Your task to perform on an android device: check storage Image 0: 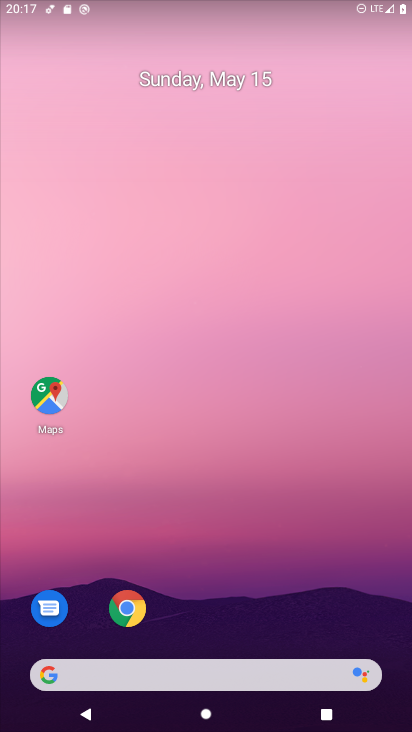
Step 0: drag from (233, 606) to (186, 125)
Your task to perform on an android device: check storage Image 1: 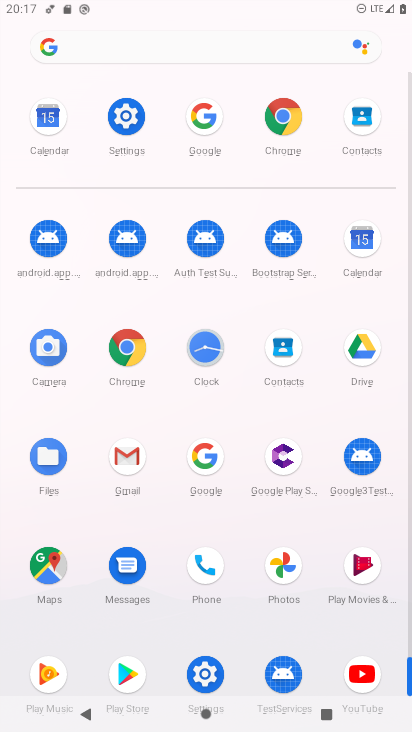
Step 1: click (208, 677)
Your task to perform on an android device: check storage Image 2: 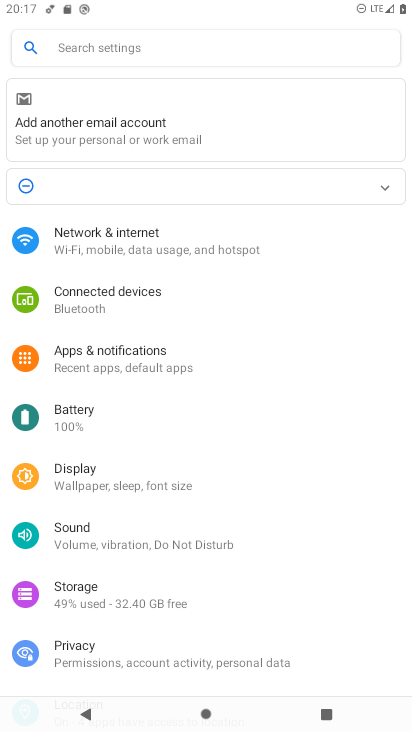
Step 2: click (92, 606)
Your task to perform on an android device: check storage Image 3: 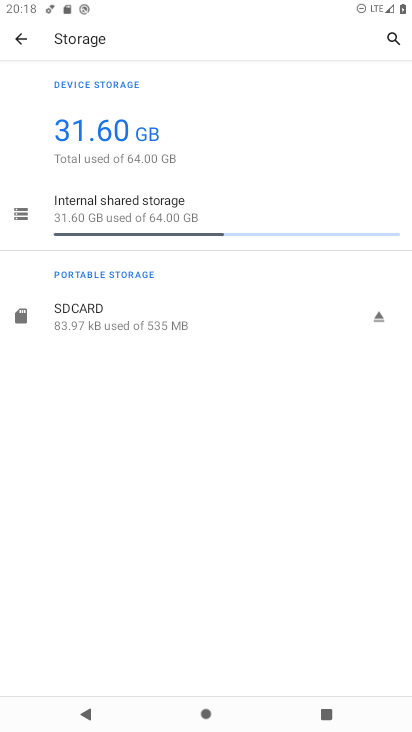
Step 3: task complete